Your task to perform on an android device: Go to Yahoo.com Image 0: 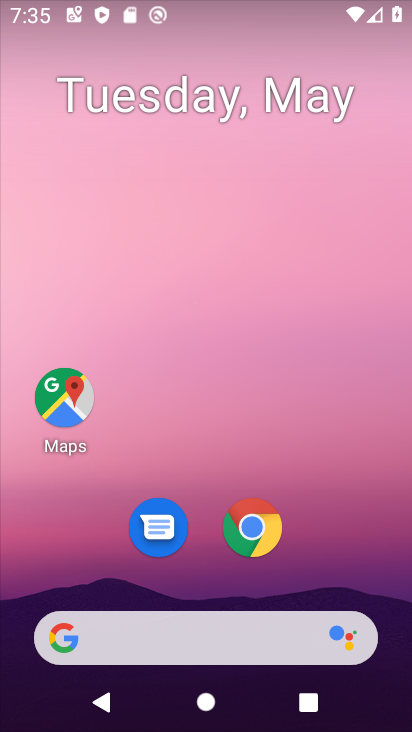
Step 0: click (255, 528)
Your task to perform on an android device: Go to Yahoo.com Image 1: 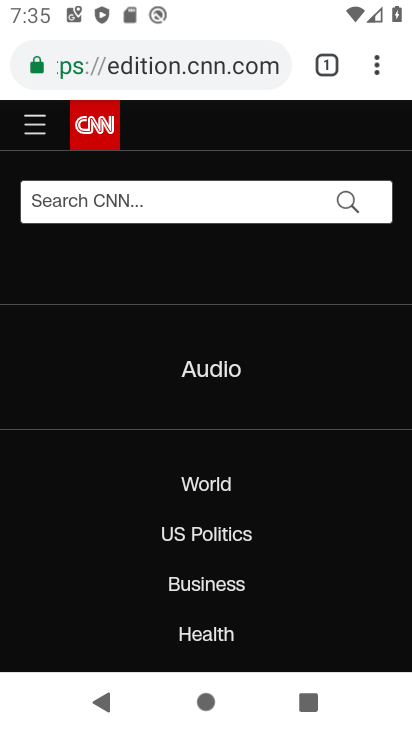
Step 1: click (268, 66)
Your task to perform on an android device: Go to Yahoo.com Image 2: 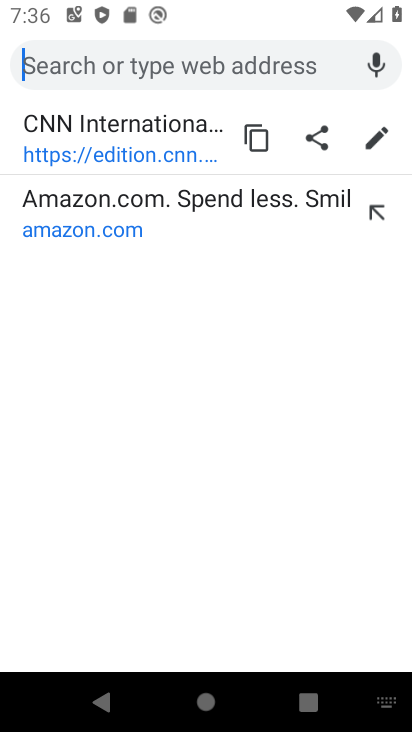
Step 2: type "Yahoo.com"
Your task to perform on an android device: Go to Yahoo.com Image 3: 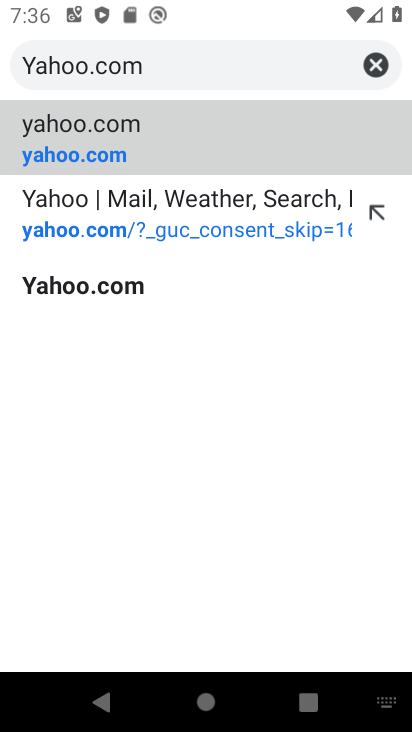
Step 3: click (69, 303)
Your task to perform on an android device: Go to Yahoo.com Image 4: 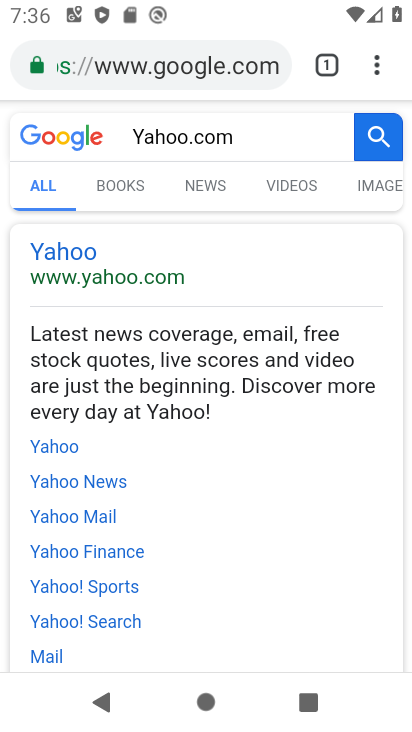
Step 4: click (96, 268)
Your task to perform on an android device: Go to Yahoo.com Image 5: 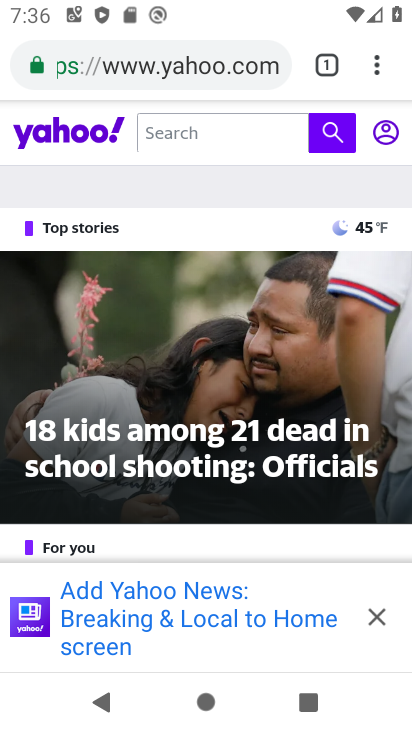
Step 5: task complete